Your task to perform on an android device: add a label to a message in the gmail app Image 0: 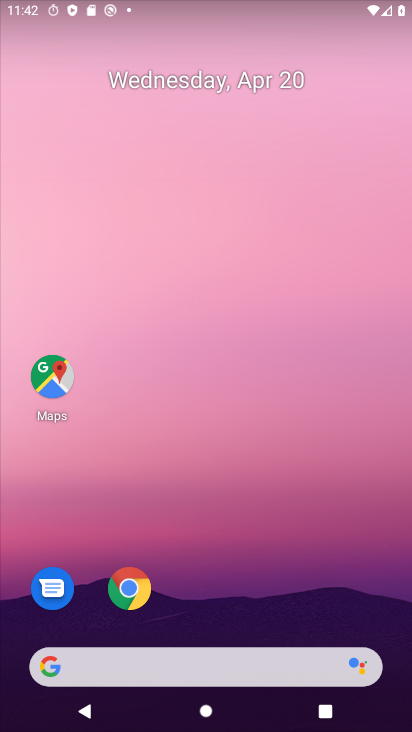
Step 0: drag from (222, 621) to (209, 77)
Your task to perform on an android device: add a label to a message in the gmail app Image 1: 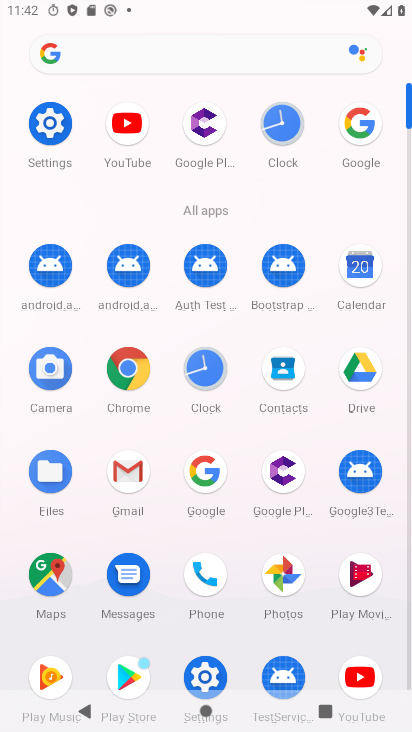
Step 1: click (126, 460)
Your task to perform on an android device: add a label to a message in the gmail app Image 2: 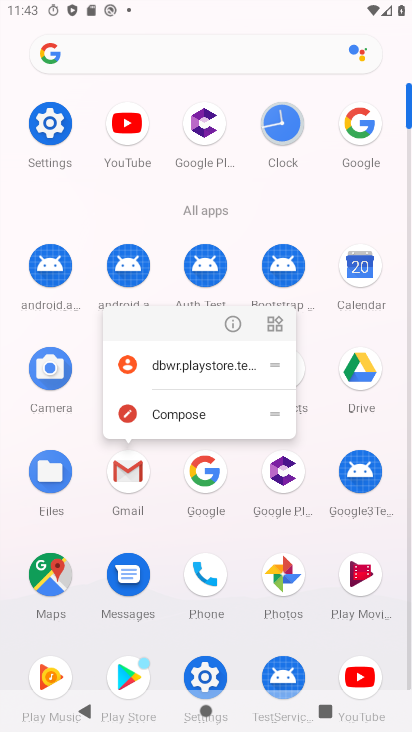
Step 2: click (127, 462)
Your task to perform on an android device: add a label to a message in the gmail app Image 3: 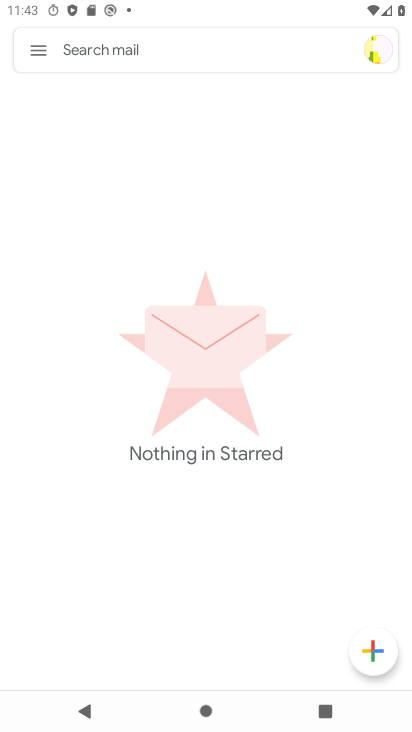
Step 3: click (36, 53)
Your task to perform on an android device: add a label to a message in the gmail app Image 4: 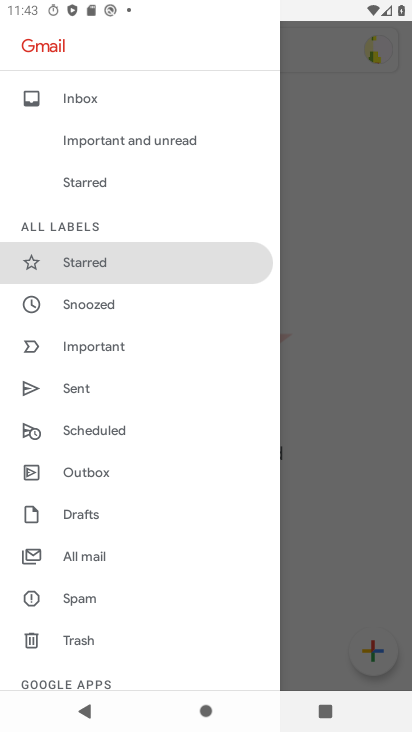
Step 4: click (112, 553)
Your task to perform on an android device: add a label to a message in the gmail app Image 5: 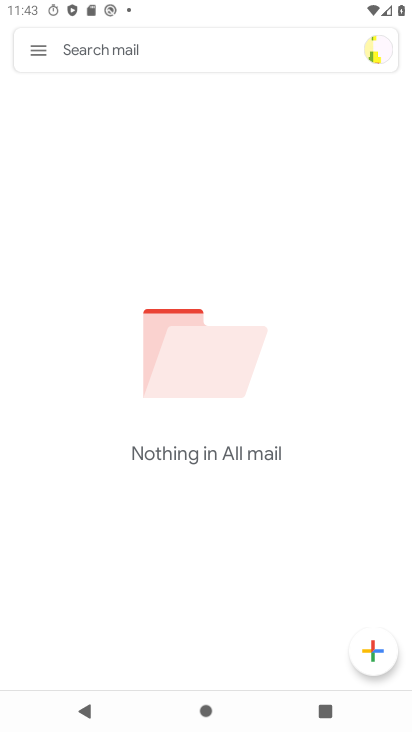
Step 5: task complete